Your task to perform on an android device: check google app version Image 0: 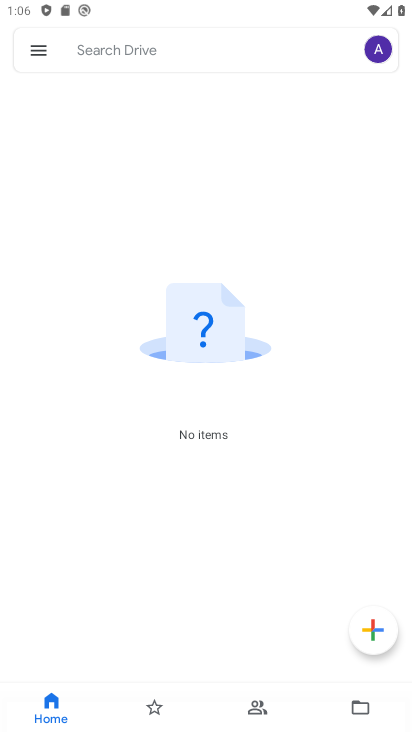
Step 0: press home button
Your task to perform on an android device: check google app version Image 1: 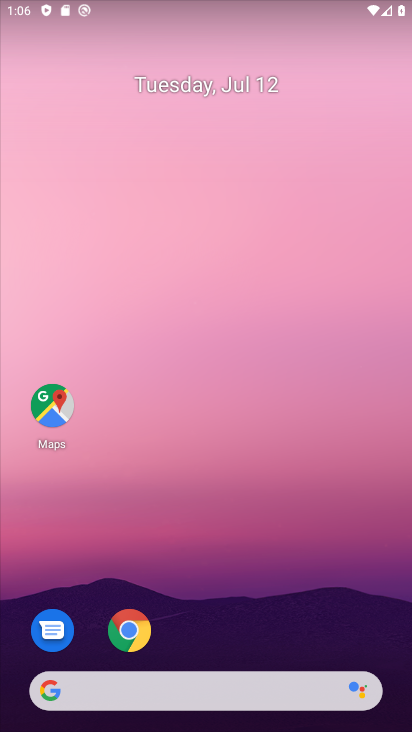
Step 1: drag from (197, 656) to (146, 156)
Your task to perform on an android device: check google app version Image 2: 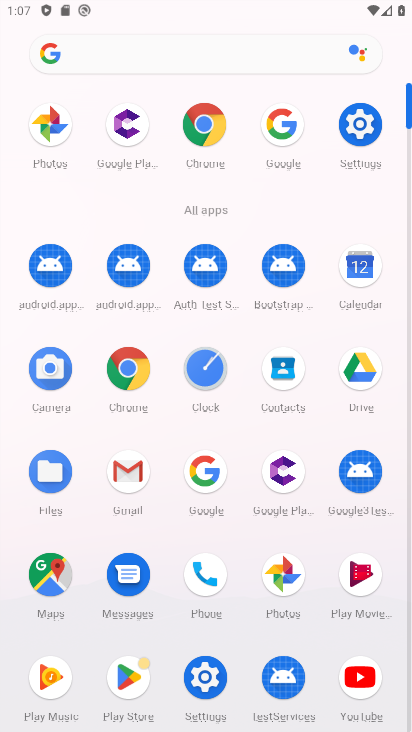
Step 2: click (215, 488)
Your task to perform on an android device: check google app version Image 3: 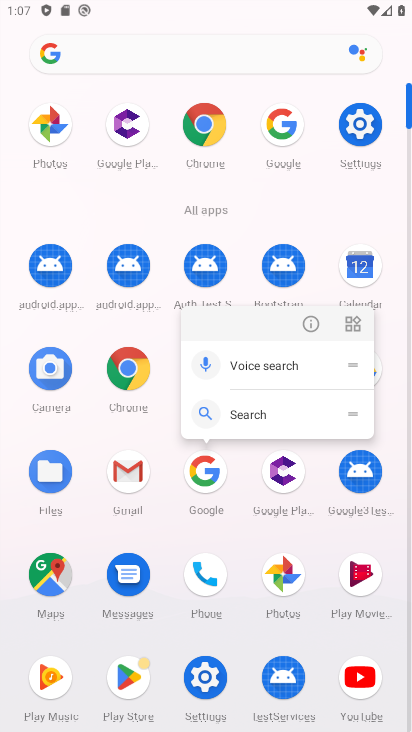
Step 3: click (305, 324)
Your task to perform on an android device: check google app version Image 4: 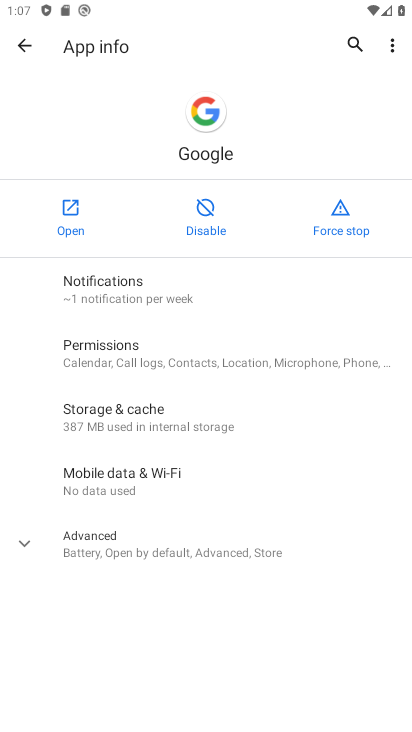
Step 4: click (123, 533)
Your task to perform on an android device: check google app version Image 5: 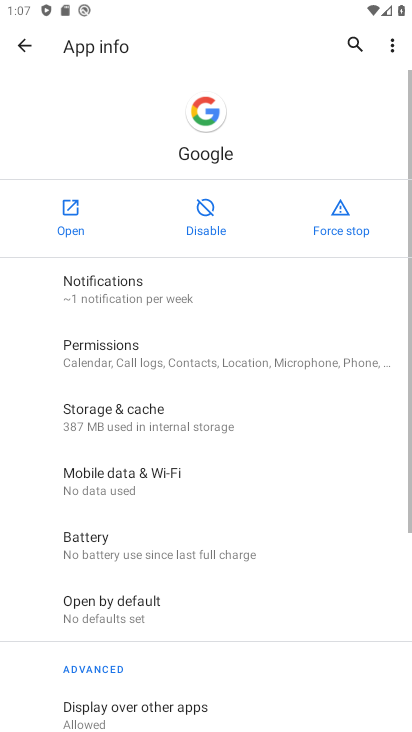
Step 5: task complete